Your task to perform on an android device: toggle javascript in the chrome app Image 0: 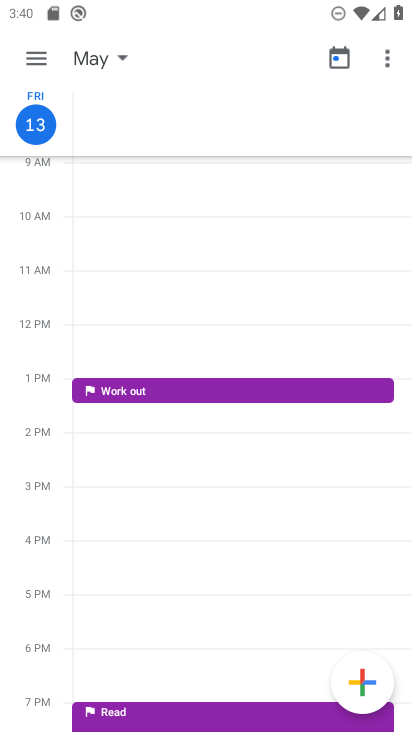
Step 0: drag from (196, 550) to (281, 264)
Your task to perform on an android device: toggle javascript in the chrome app Image 1: 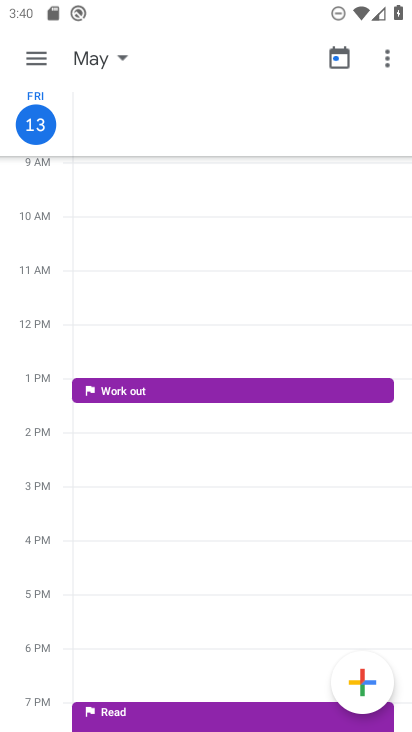
Step 1: press home button
Your task to perform on an android device: toggle javascript in the chrome app Image 2: 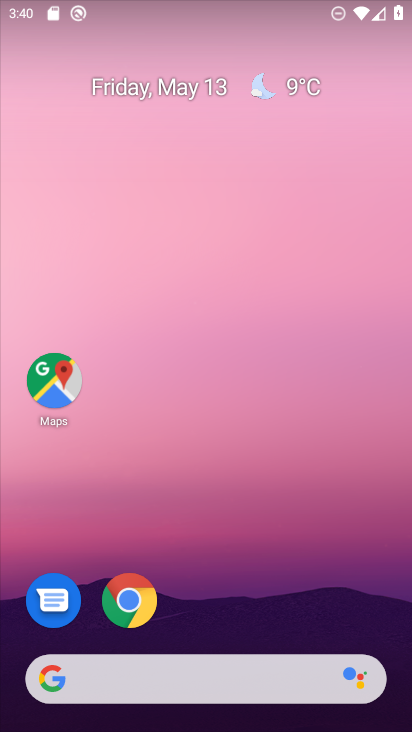
Step 2: drag from (188, 602) to (261, 88)
Your task to perform on an android device: toggle javascript in the chrome app Image 3: 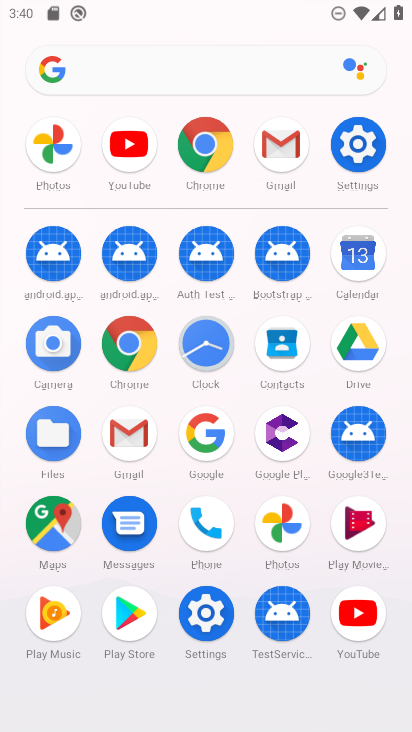
Step 3: click (207, 145)
Your task to perform on an android device: toggle javascript in the chrome app Image 4: 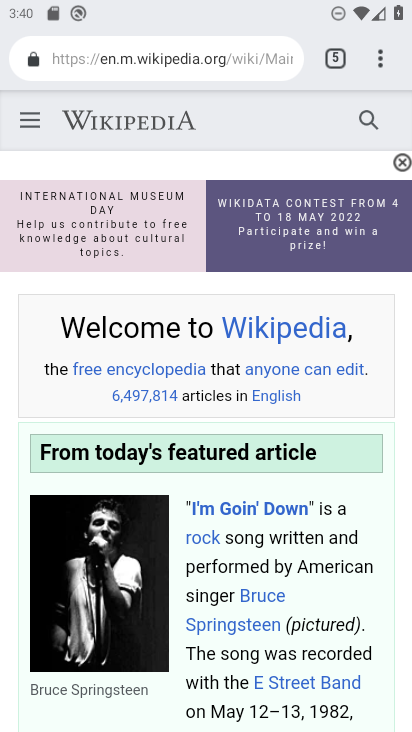
Step 4: drag from (192, 551) to (248, 303)
Your task to perform on an android device: toggle javascript in the chrome app Image 5: 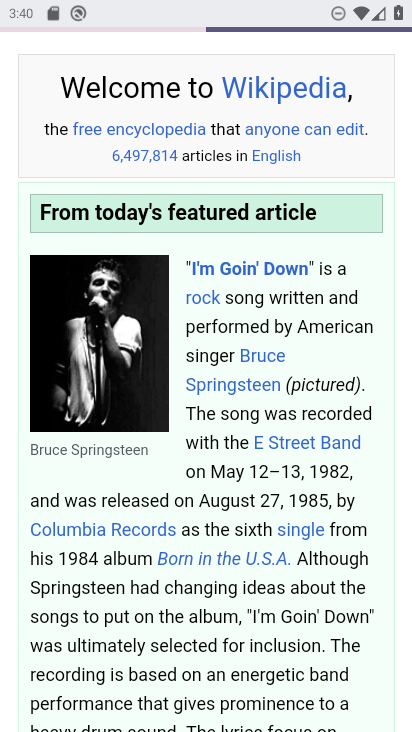
Step 5: drag from (378, 193) to (338, 576)
Your task to perform on an android device: toggle javascript in the chrome app Image 6: 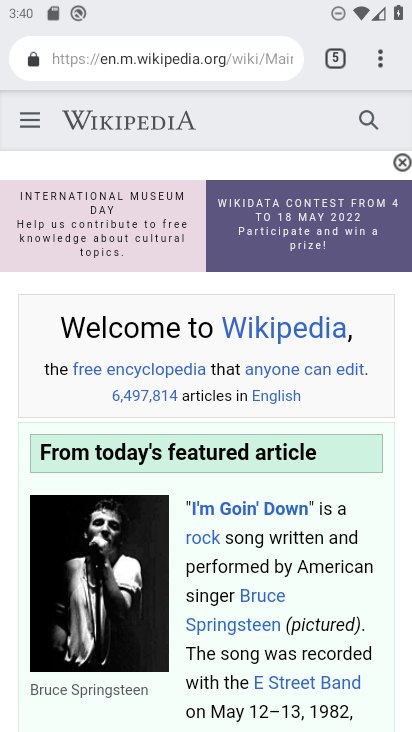
Step 6: drag from (378, 68) to (226, 617)
Your task to perform on an android device: toggle javascript in the chrome app Image 7: 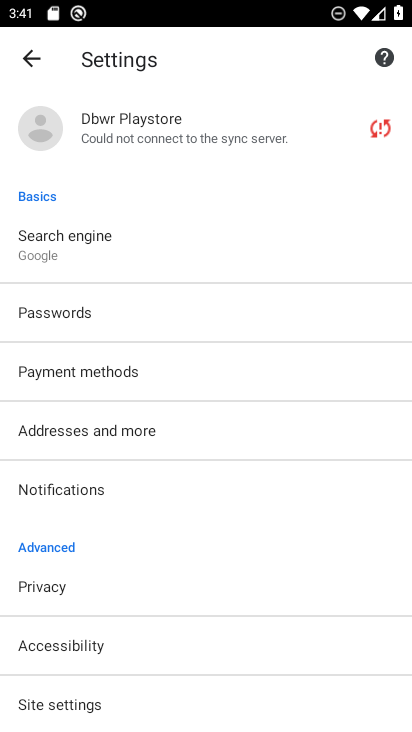
Step 7: drag from (205, 619) to (296, 201)
Your task to perform on an android device: toggle javascript in the chrome app Image 8: 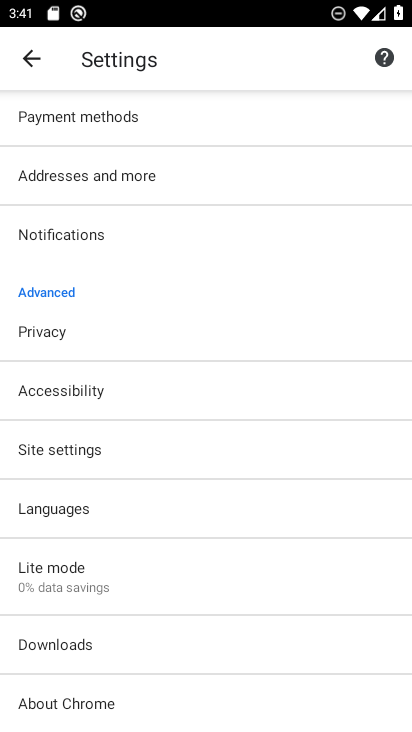
Step 8: click (100, 445)
Your task to perform on an android device: toggle javascript in the chrome app Image 9: 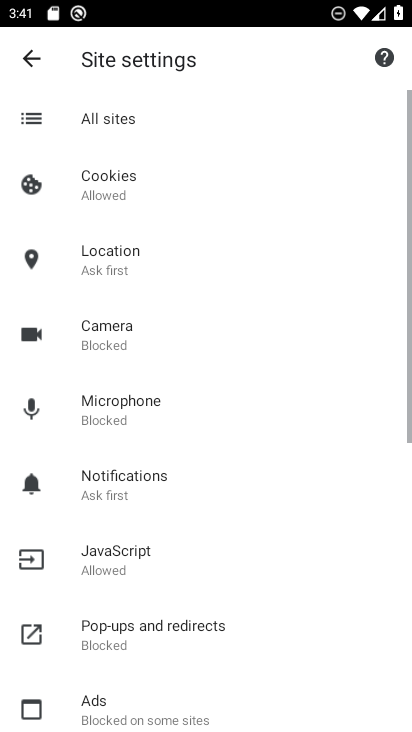
Step 9: drag from (177, 610) to (239, 405)
Your task to perform on an android device: toggle javascript in the chrome app Image 10: 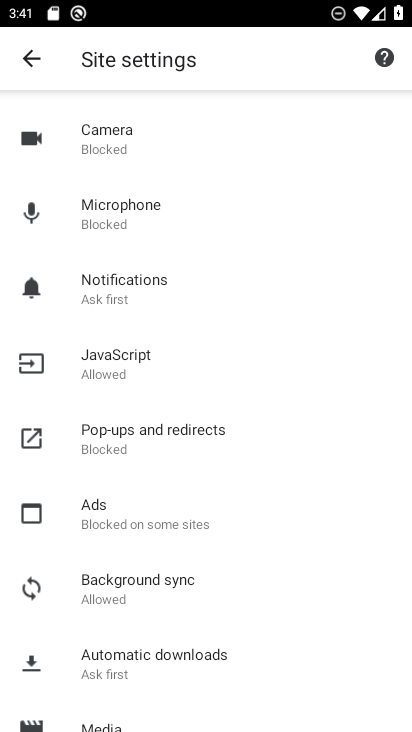
Step 10: click (136, 358)
Your task to perform on an android device: toggle javascript in the chrome app Image 11: 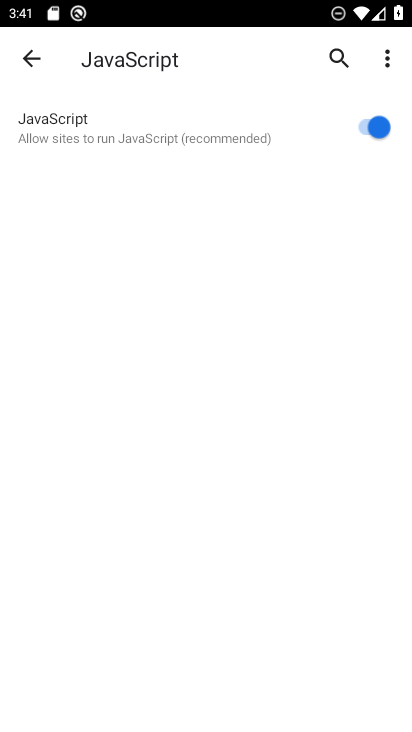
Step 11: click (365, 118)
Your task to perform on an android device: toggle javascript in the chrome app Image 12: 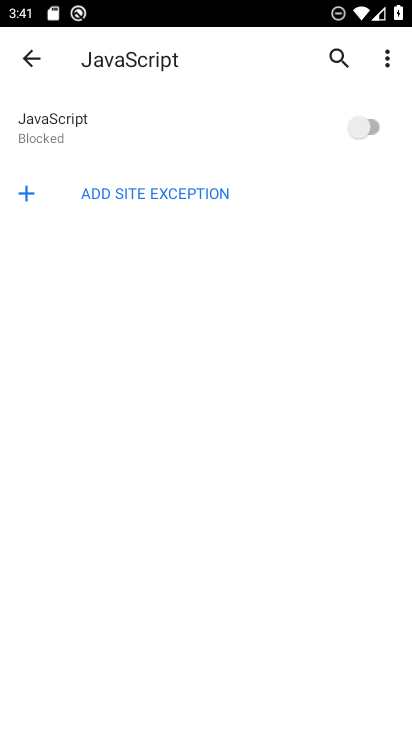
Step 12: task complete